Your task to perform on an android device: See recent photos Image 0: 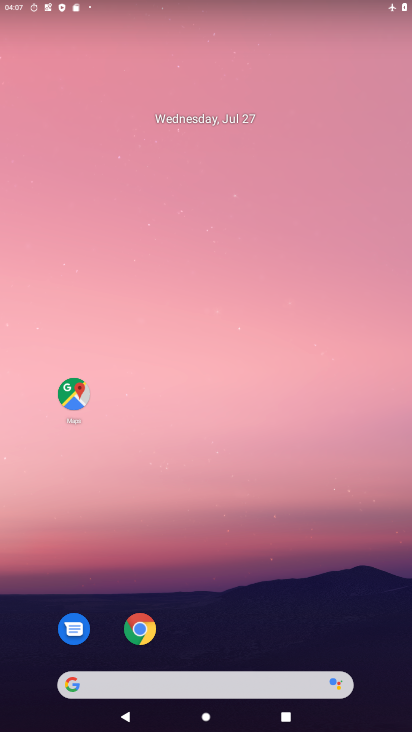
Step 0: drag from (221, 617) to (207, 145)
Your task to perform on an android device: See recent photos Image 1: 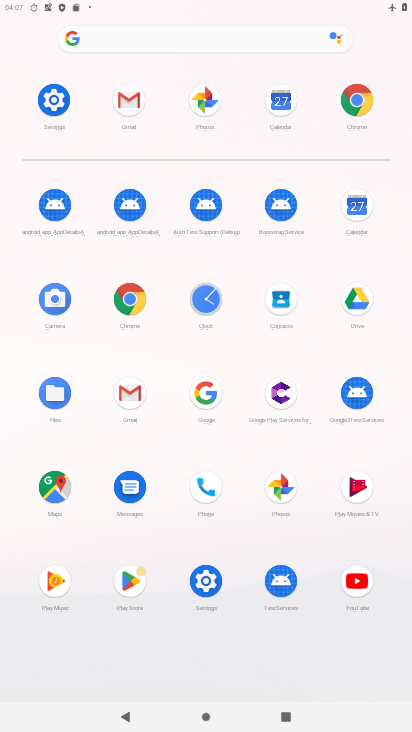
Step 1: click (280, 486)
Your task to perform on an android device: See recent photos Image 2: 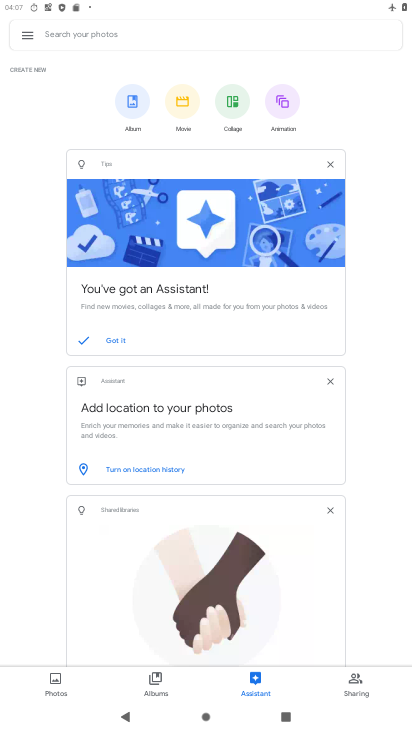
Step 2: click (41, 689)
Your task to perform on an android device: See recent photos Image 3: 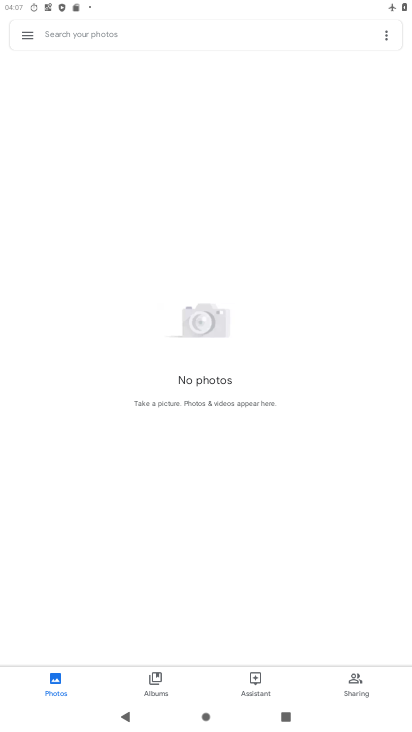
Step 3: task complete